Your task to perform on an android device: turn off javascript in the chrome app Image 0: 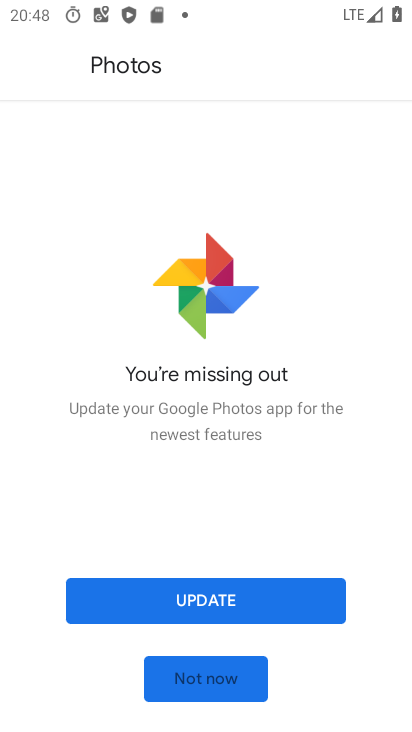
Step 0: press home button
Your task to perform on an android device: turn off javascript in the chrome app Image 1: 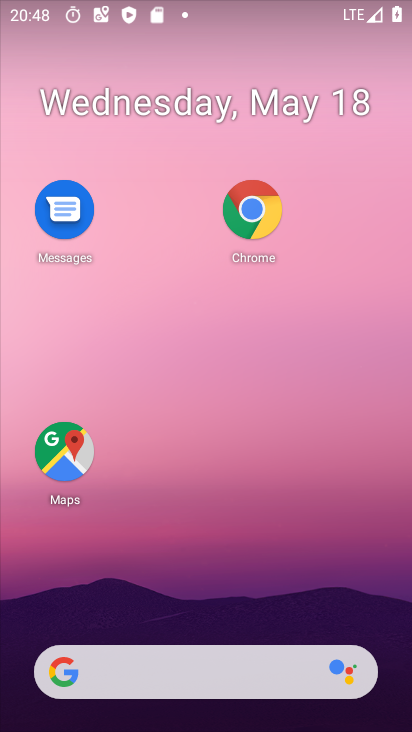
Step 1: click (239, 218)
Your task to perform on an android device: turn off javascript in the chrome app Image 2: 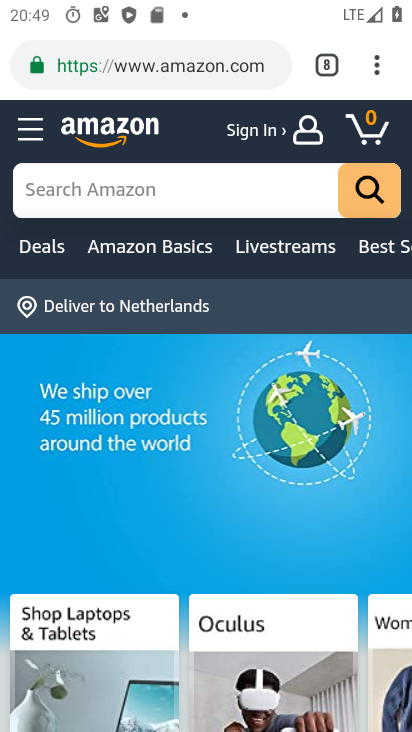
Step 2: click (387, 62)
Your task to perform on an android device: turn off javascript in the chrome app Image 3: 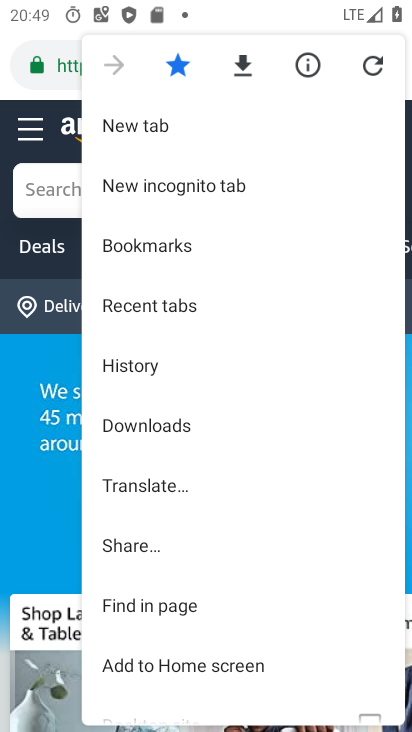
Step 3: drag from (156, 623) to (227, 106)
Your task to perform on an android device: turn off javascript in the chrome app Image 4: 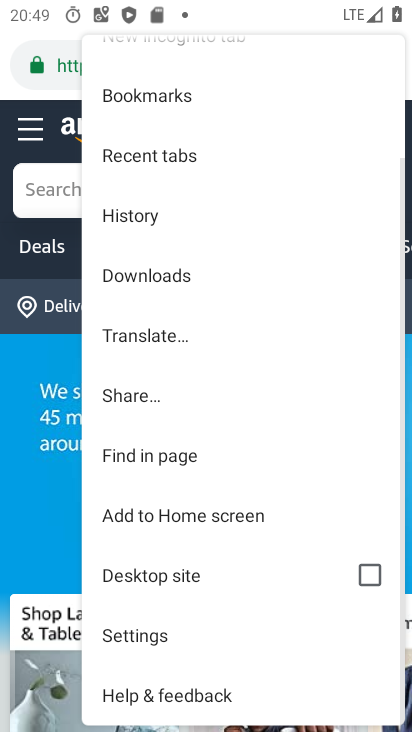
Step 4: click (123, 627)
Your task to perform on an android device: turn off javascript in the chrome app Image 5: 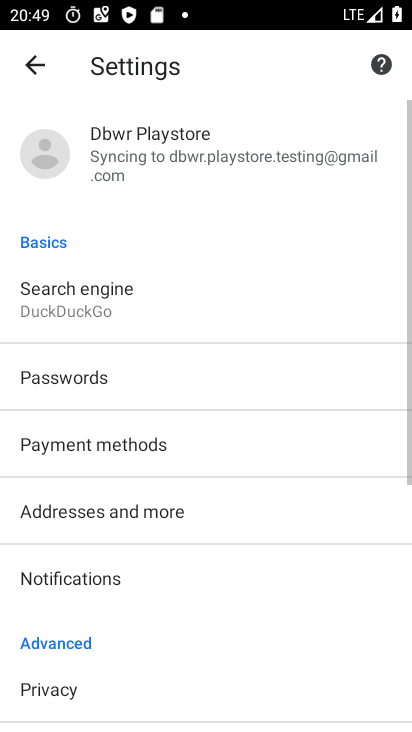
Step 5: drag from (105, 659) to (138, 201)
Your task to perform on an android device: turn off javascript in the chrome app Image 6: 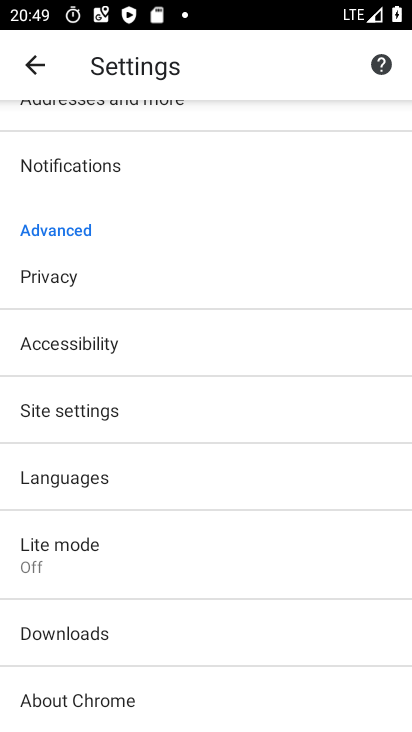
Step 6: click (90, 405)
Your task to perform on an android device: turn off javascript in the chrome app Image 7: 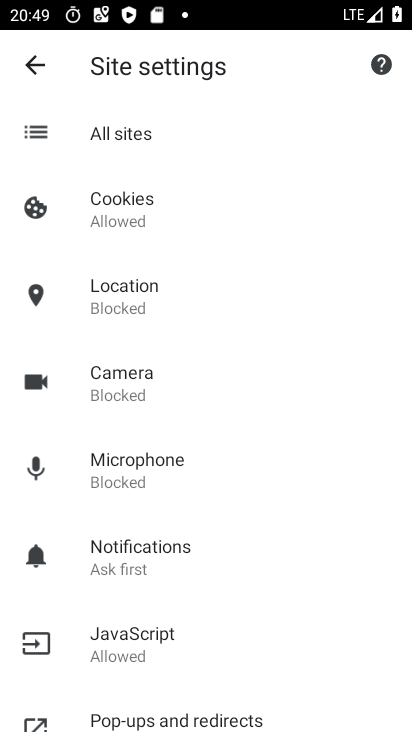
Step 7: click (152, 627)
Your task to perform on an android device: turn off javascript in the chrome app Image 8: 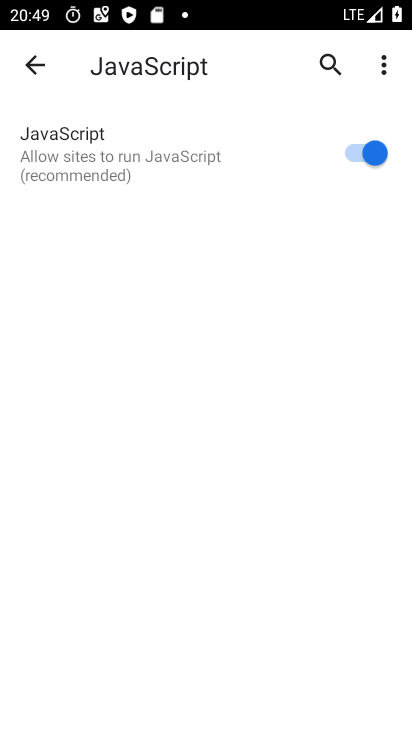
Step 8: task complete